Your task to perform on an android device: toggle sleep mode Image 0: 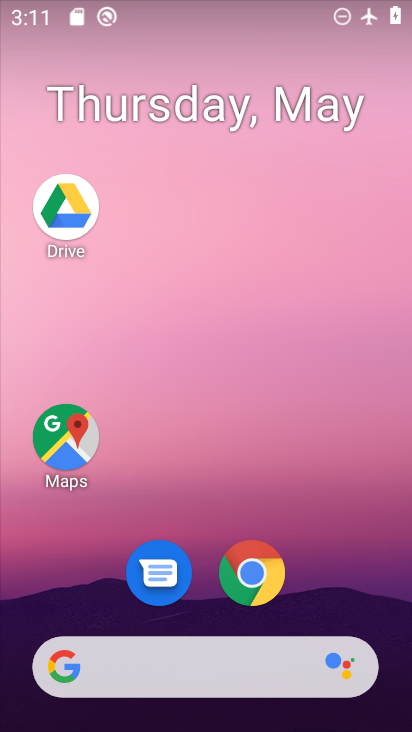
Step 0: drag from (281, 470) to (118, 29)
Your task to perform on an android device: toggle sleep mode Image 1: 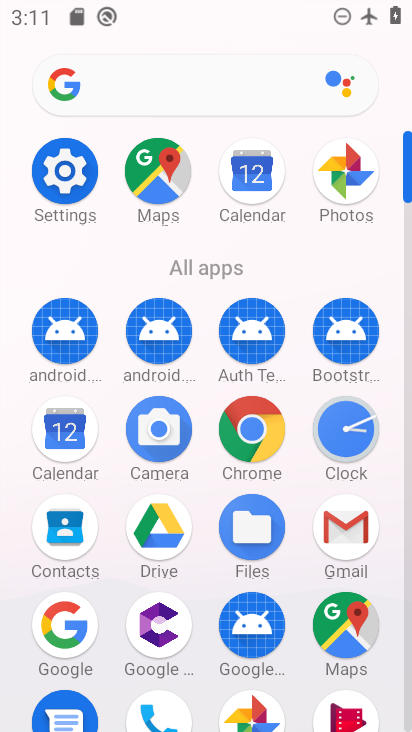
Step 1: click (68, 173)
Your task to perform on an android device: toggle sleep mode Image 2: 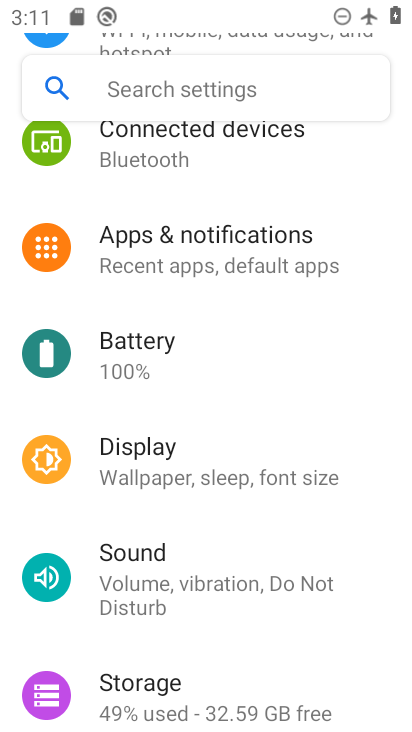
Step 2: click (159, 451)
Your task to perform on an android device: toggle sleep mode Image 3: 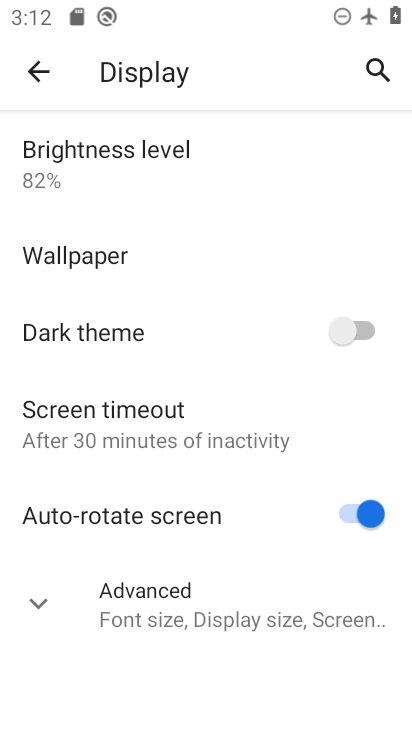
Step 3: drag from (239, 548) to (185, 258)
Your task to perform on an android device: toggle sleep mode Image 4: 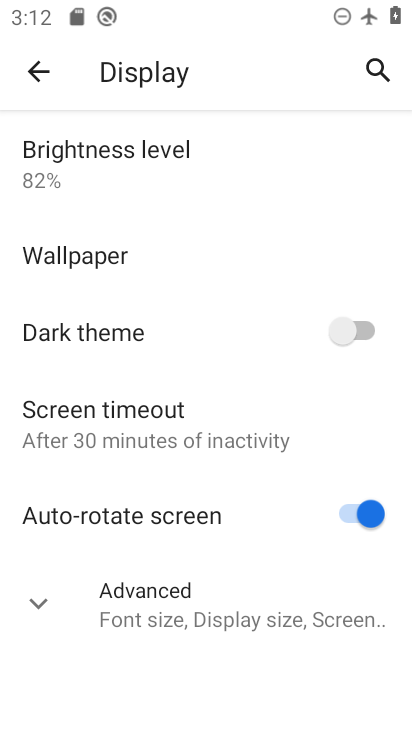
Step 4: click (61, 606)
Your task to perform on an android device: toggle sleep mode Image 5: 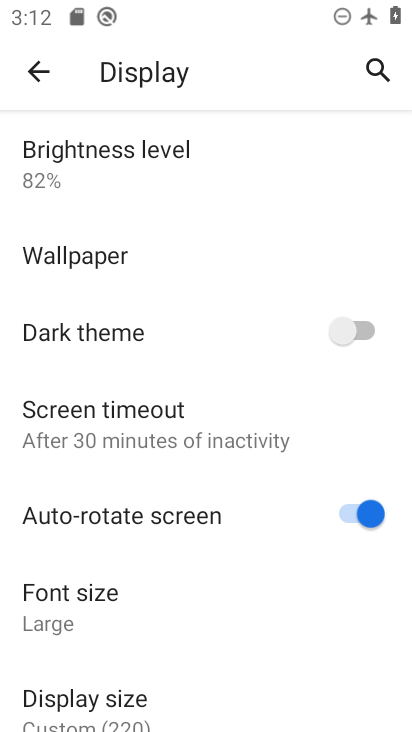
Step 5: task complete